Your task to perform on an android device: allow cookies in the chrome app Image 0: 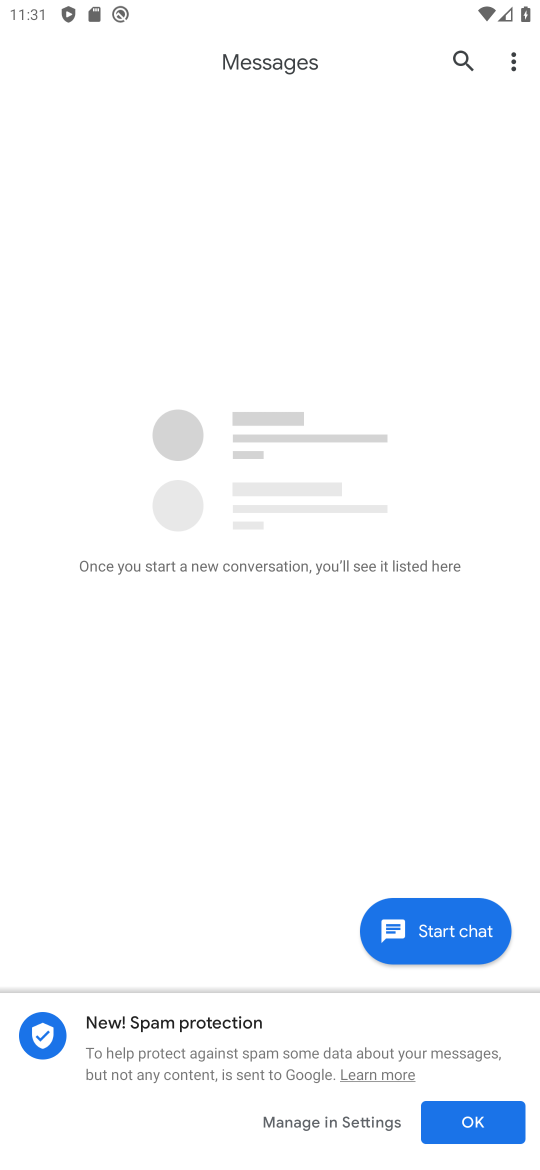
Step 0: task complete